Your task to perform on an android device: set default search engine in the chrome app Image 0: 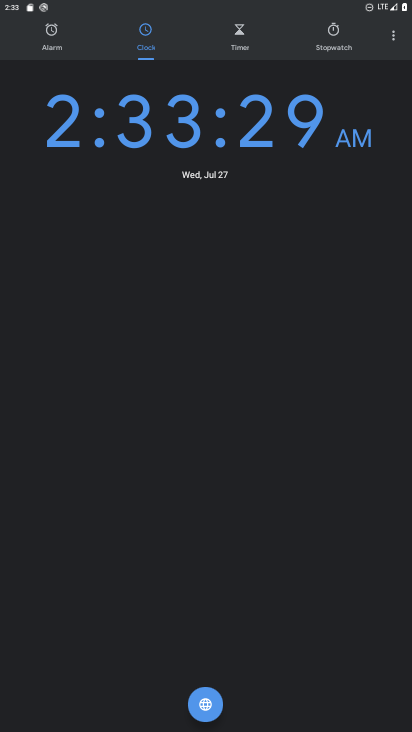
Step 0: press home button
Your task to perform on an android device: set default search engine in the chrome app Image 1: 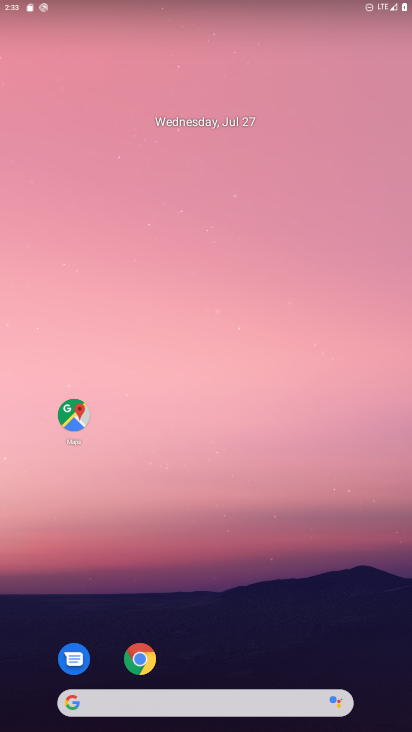
Step 1: click (136, 665)
Your task to perform on an android device: set default search engine in the chrome app Image 2: 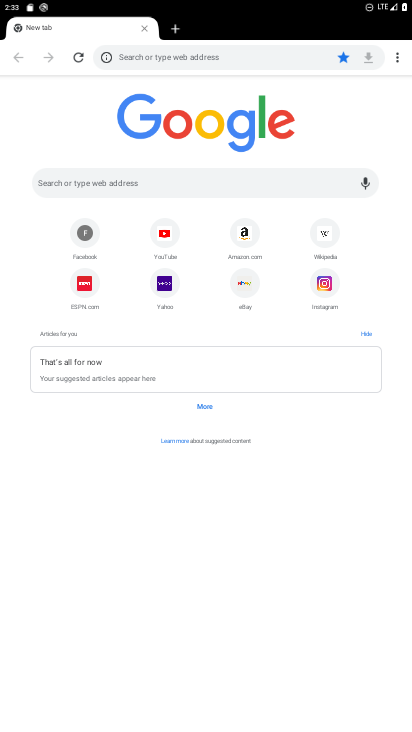
Step 2: click (344, 60)
Your task to perform on an android device: set default search engine in the chrome app Image 3: 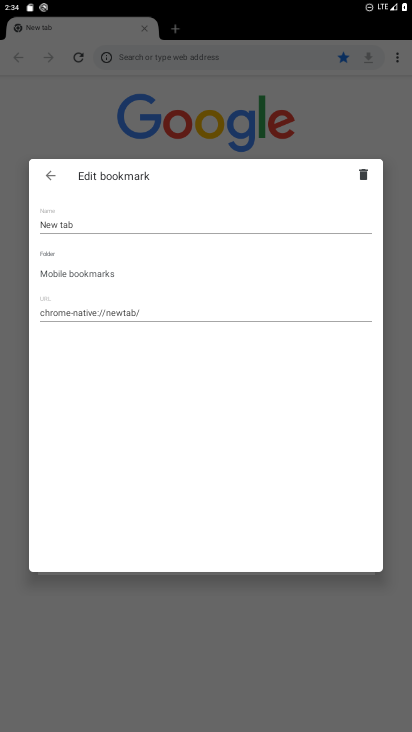
Step 3: drag from (155, 310) to (11, 323)
Your task to perform on an android device: set default search engine in the chrome app Image 4: 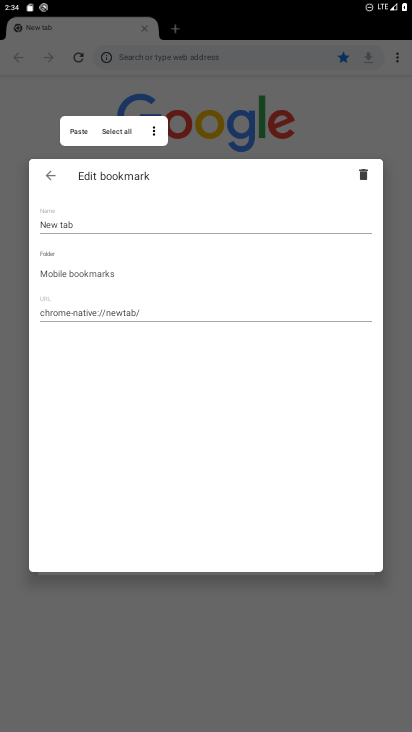
Step 4: drag from (149, 310) to (1, 320)
Your task to perform on an android device: set default search engine in the chrome app Image 5: 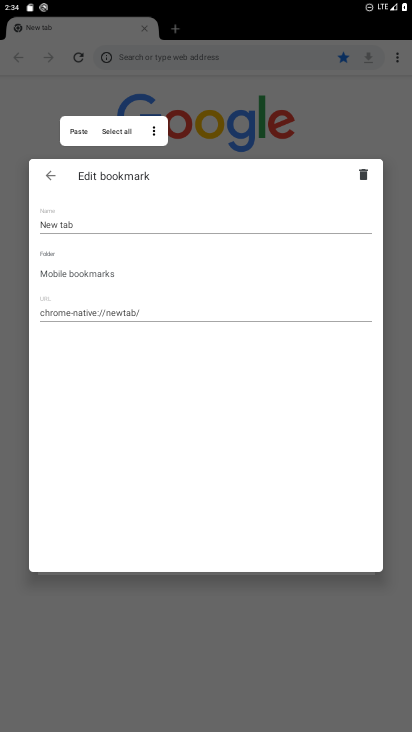
Step 5: click (144, 293)
Your task to perform on an android device: set default search engine in the chrome app Image 6: 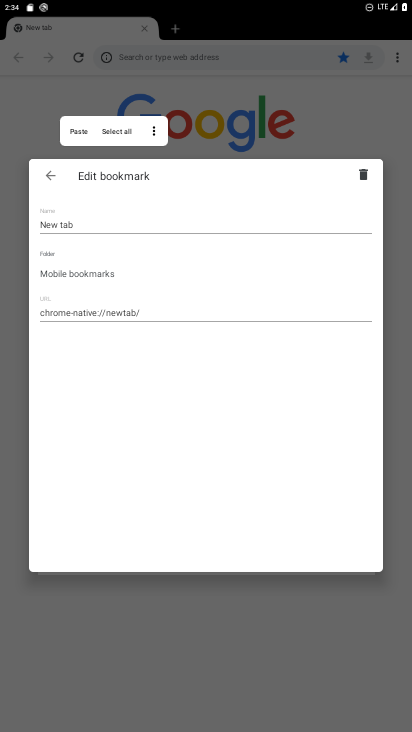
Step 6: click (155, 315)
Your task to perform on an android device: set default search engine in the chrome app Image 7: 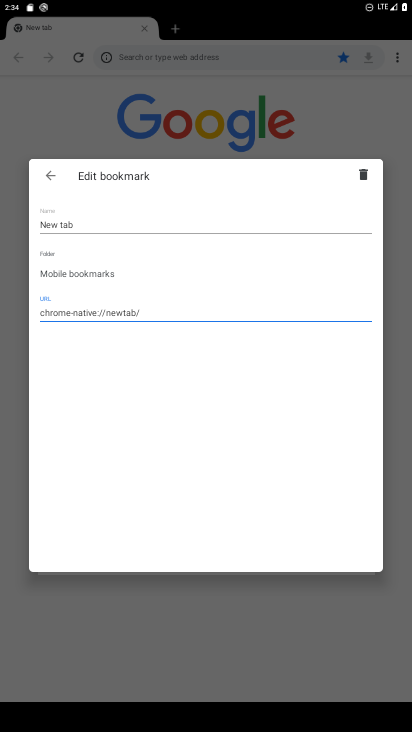
Step 7: drag from (143, 306) to (28, 316)
Your task to perform on an android device: set default search engine in the chrome app Image 8: 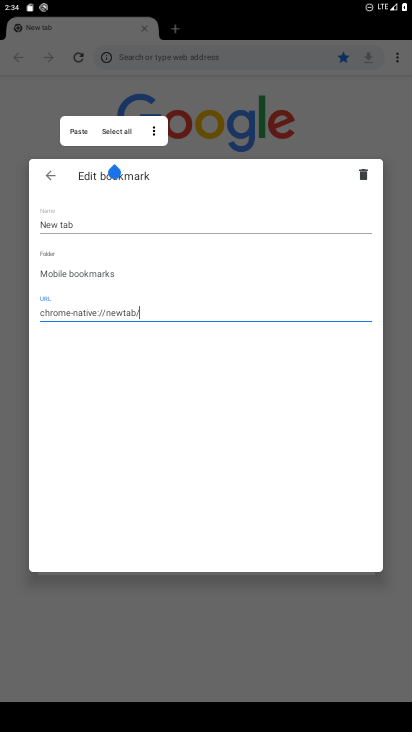
Step 8: click (77, 303)
Your task to perform on an android device: set default search engine in the chrome app Image 9: 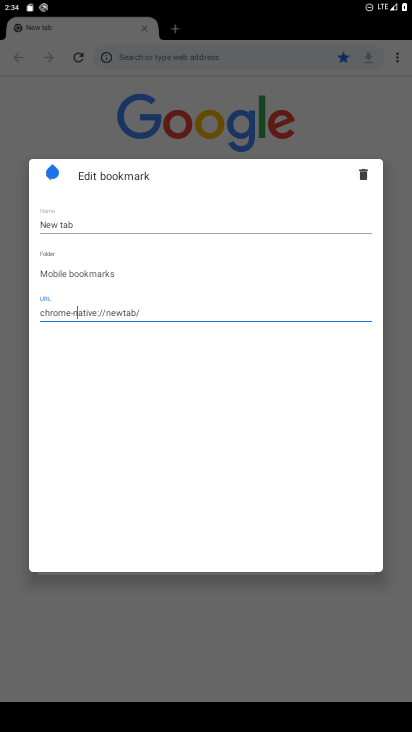
Step 9: click (78, 308)
Your task to perform on an android device: set default search engine in the chrome app Image 10: 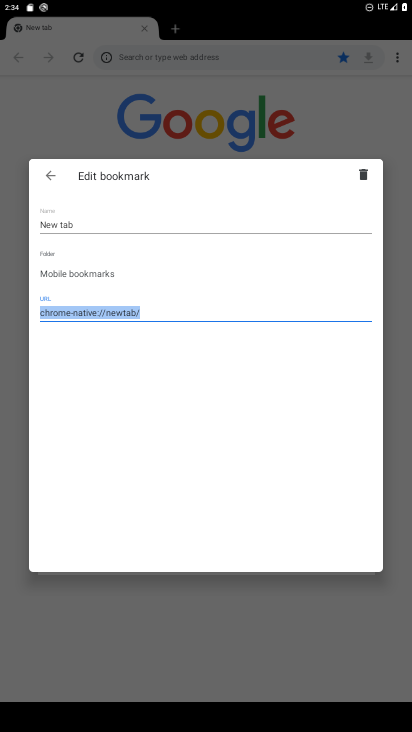
Step 10: click (78, 308)
Your task to perform on an android device: set default search engine in the chrome app Image 11: 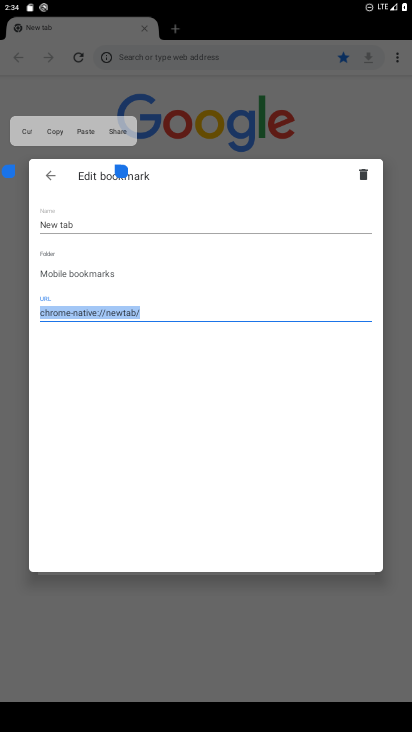
Step 11: click (78, 308)
Your task to perform on an android device: set default search engine in the chrome app Image 12: 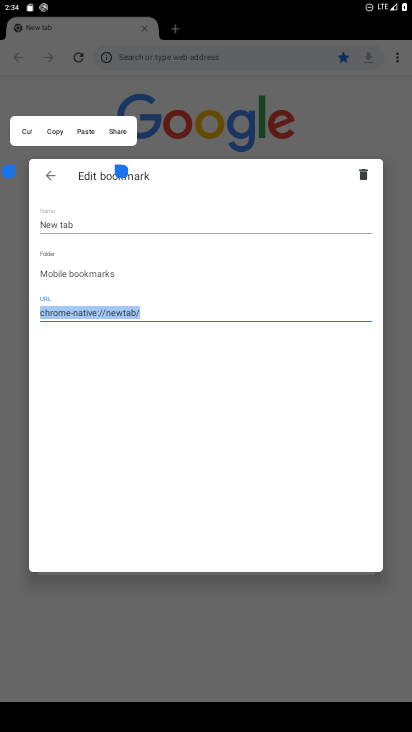
Step 12: click (32, 134)
Your task to perform on an android device: set default search engine in the chrome app Image 13: 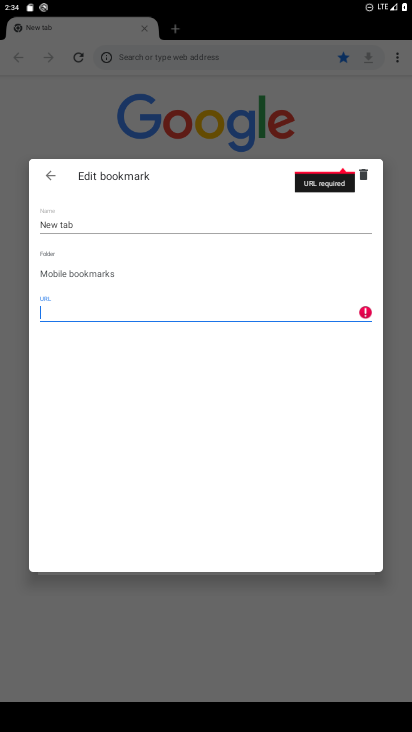
Step 13: click (358, 168)
Your task to perform on an android device: set default search engine in the chrome app Image 14: 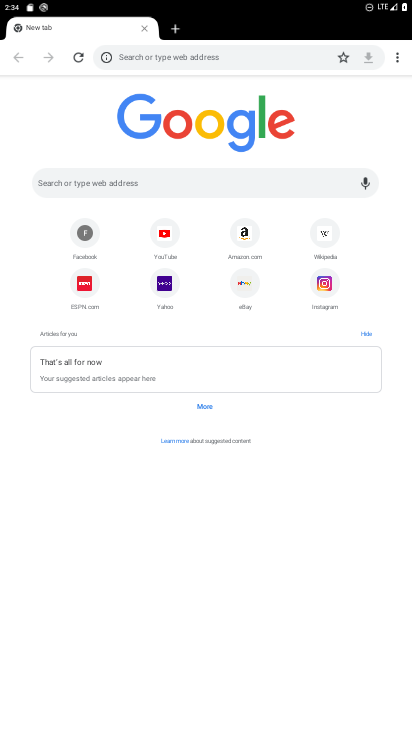
Step 14: click (390, 50)
Your task to perform on an android device: set default search engine in the chrome app Image 15: 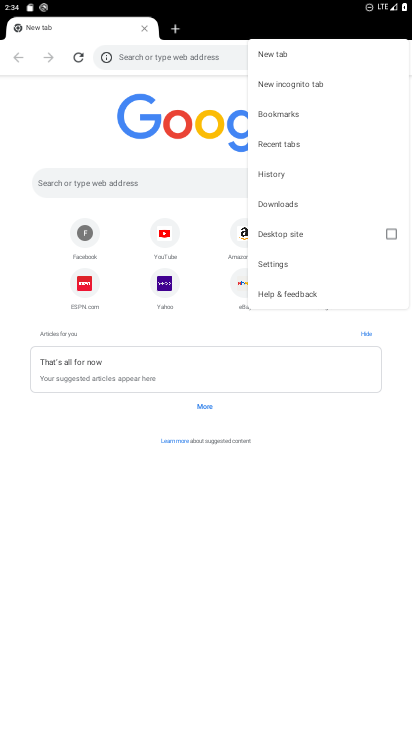
Step 15: click (277, 120)
Your task to perform on an android device: set default search engine in the chrome app Image 16: 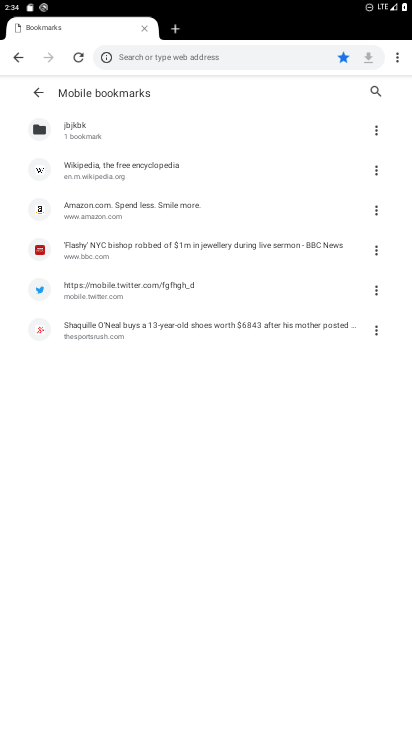
Step 16: click (378, 133)
Your task to perform on an android device: set default search engine in the chrome app Image 17: 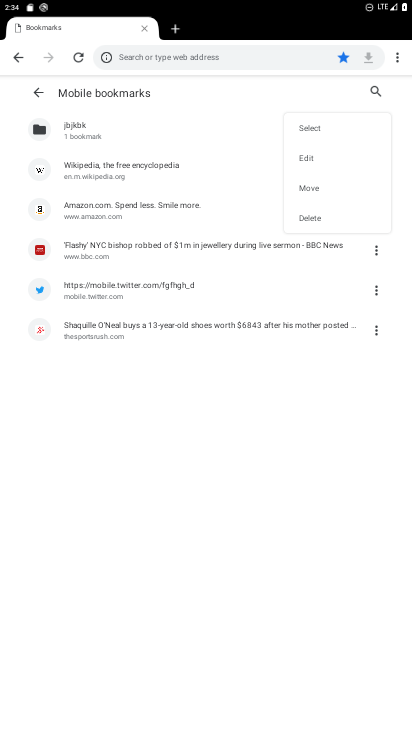
Step 17: click (206, 436)
Your task to perform on an android device: set default search engine in the chrome app Image 18: 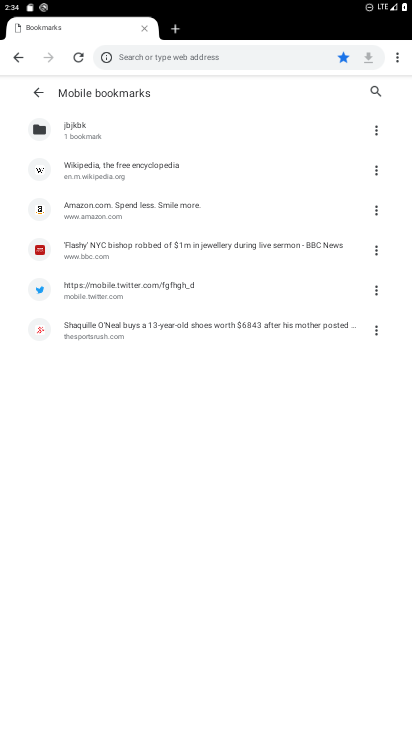
Step 18: click (397, 60)
Your task to perform on an android device: set default search engine in the chrome app Image 19: 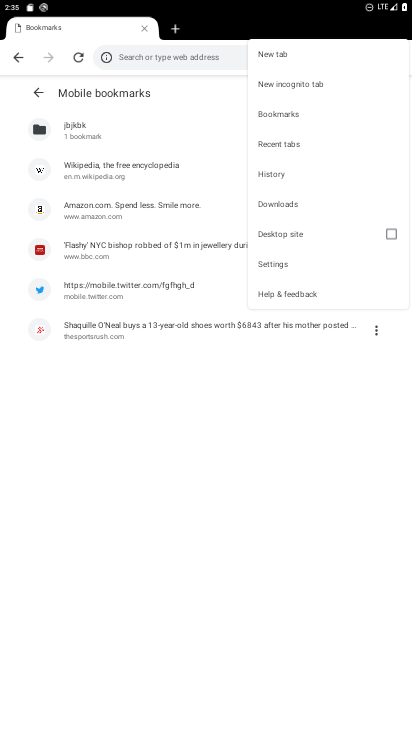
Step 19: click (232, 417)
Your task to perform on an android device: set default search engine in the chrome app Image 20: 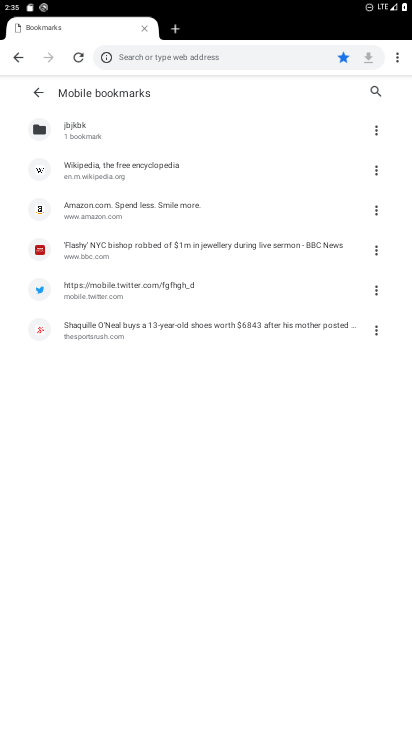
Step 20: click (108, 134)
Your task to perform on an android device: set default search engine in the chrome app Image 21: 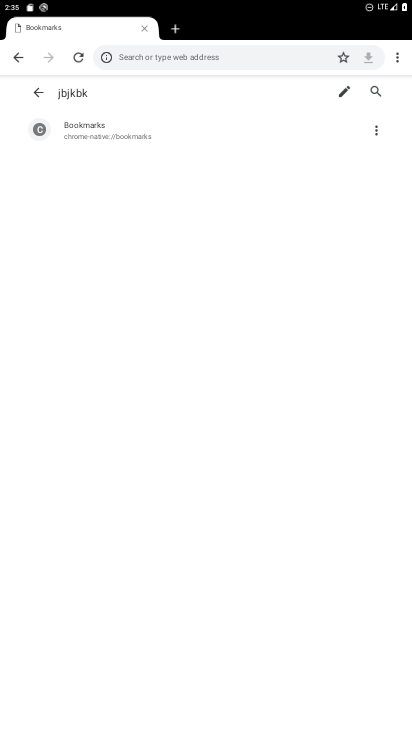
Step 21: click (343, 95)
Your task to perform on an android device: set default search engine in the chrome app Image 22: 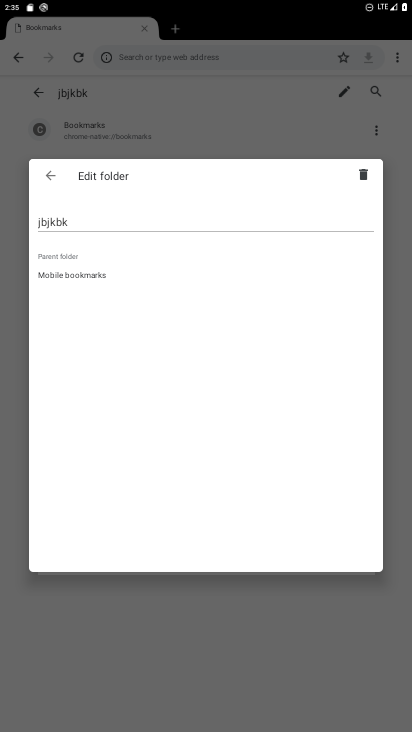
Step 22: click (132, 231)
Your task to perform on an android device: set default search engine in the chrome app Image 23: 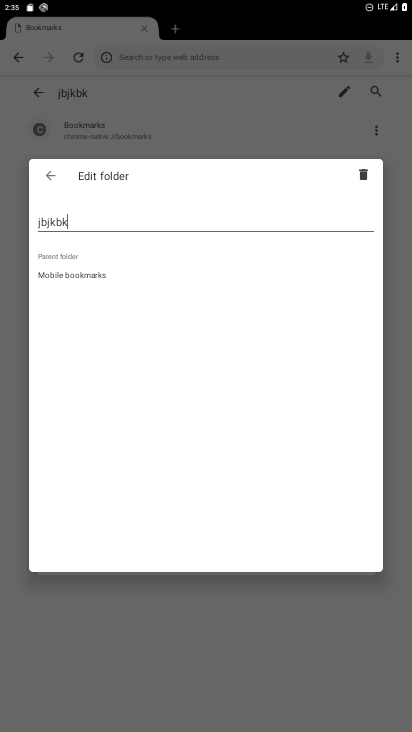
Step 23: click (116, 216)
Your task to perform on an android device: set default search engine in the chrome app Image 24: 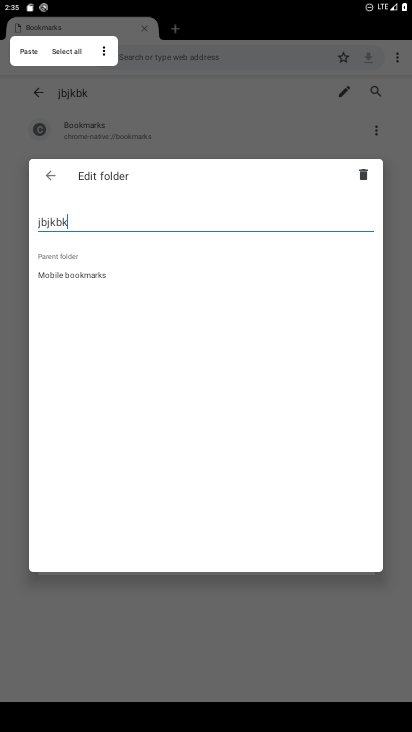
Step 24: drag from (72, 218) to (2, 249)
Your task to perform on an android device: set default search engine in the chrome app Image 25: 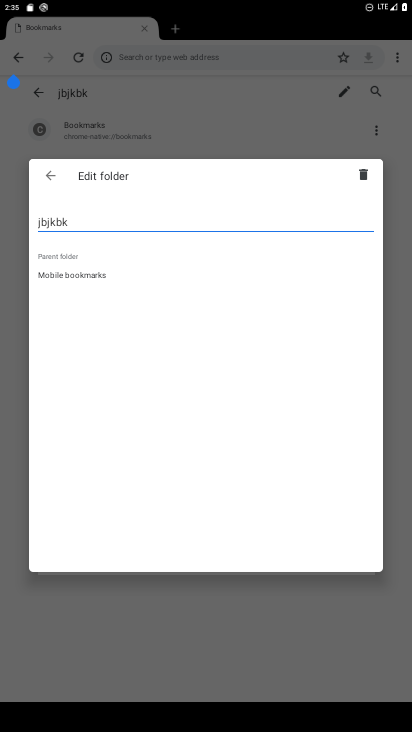
Step 25: drag from (63, 222) to (26, 222)
Your task to perform on an android device: set default search engine in the chrome app Image 26: 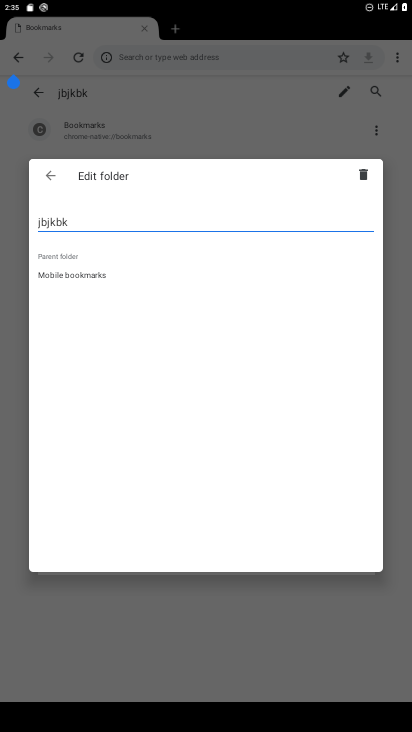
Step 26: click (43, 220)
Your task to perform on an android device: set default search engine in the chrome app Image 27: 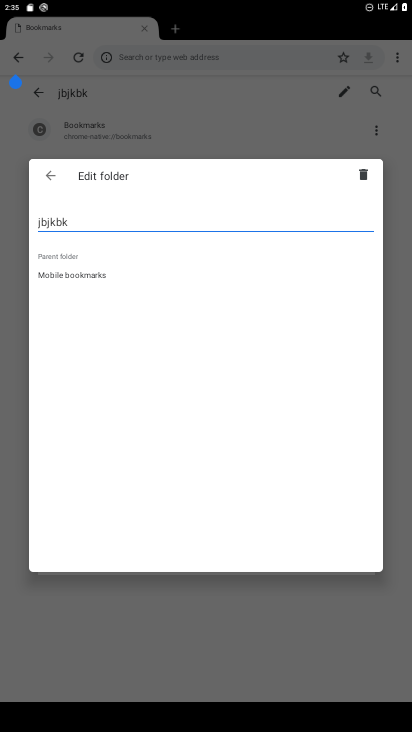
Step 27: click (48, 218)
Your task to perform on an android device: set default search engine in the chrome app Image 28: 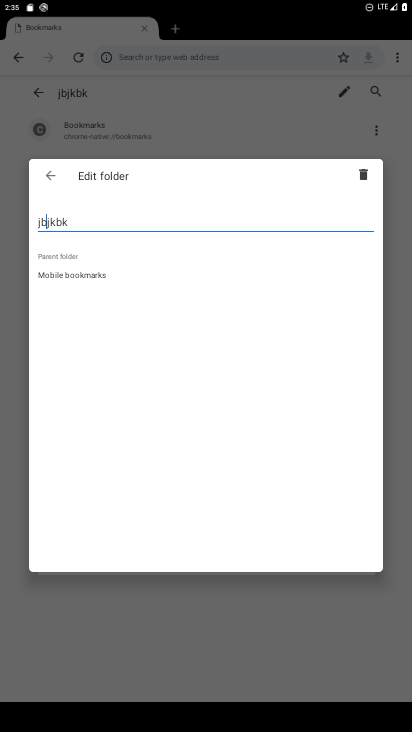
Step 28: click (56, 219)
Your task to perform on an android device: set default search engine in the chrome app Image 29: 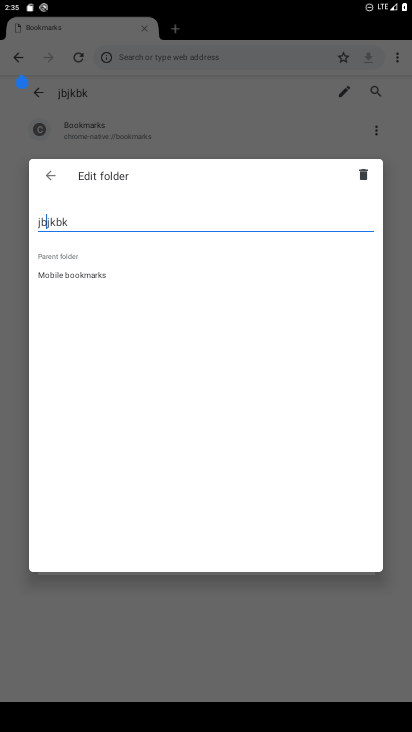
Step 29: click (56, 219)
Your task to perform on an android device: set default search engine in the chrome app Image 30: 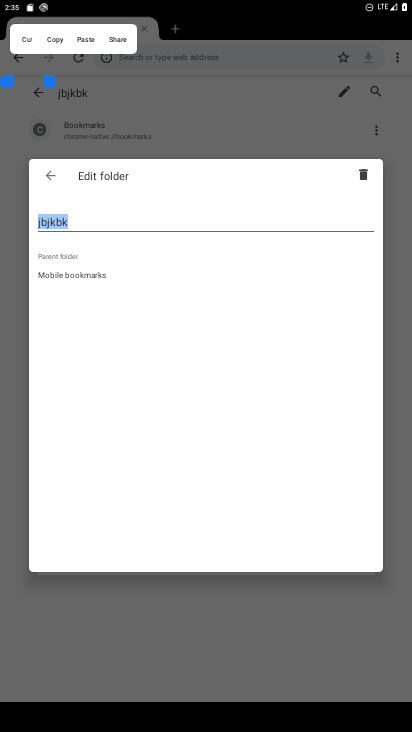
Step 30: click (21, 42)
Your task to perform on an android device: set default search engine in the chrome app Image 31: 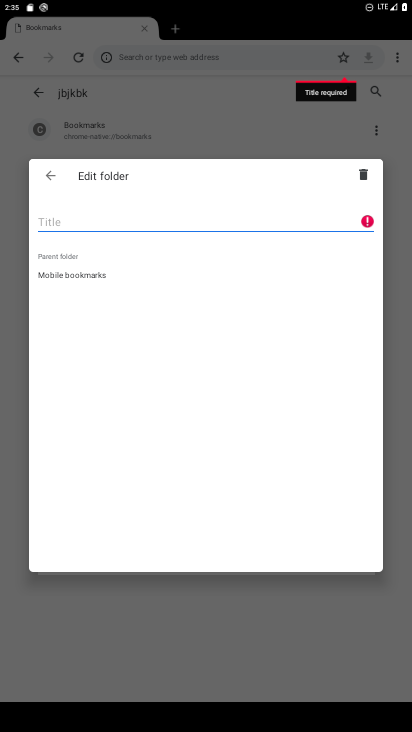
Step 31: type "hgfghhgjhhfhffyu"
Your task to perform on an android device: set default search engine in the chrome app Image 32: 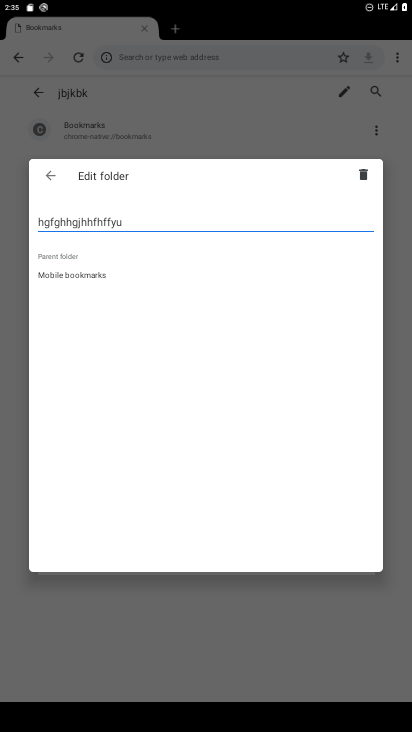
Step 32: click (262, 138)
Your task to perform on an android device: set default search engine in the chrome app Image 33: 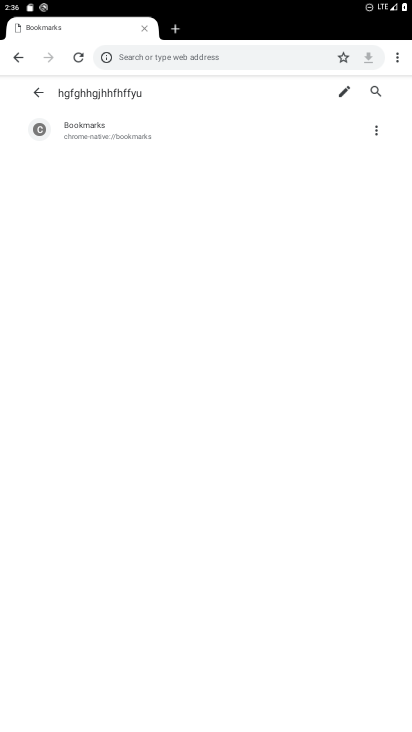
Step 33: click (109, 218)
Your task to perform on an android device: set default search engine in the chrome app Image 34: 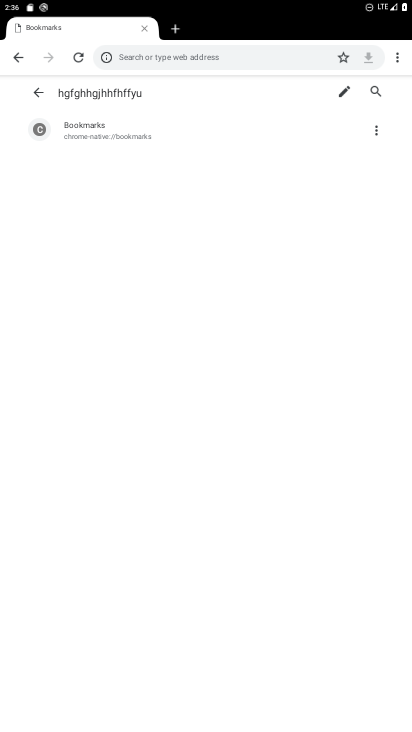
Step 34: task complete